Your task to perform on an android device: all mails in gmail Image 0: 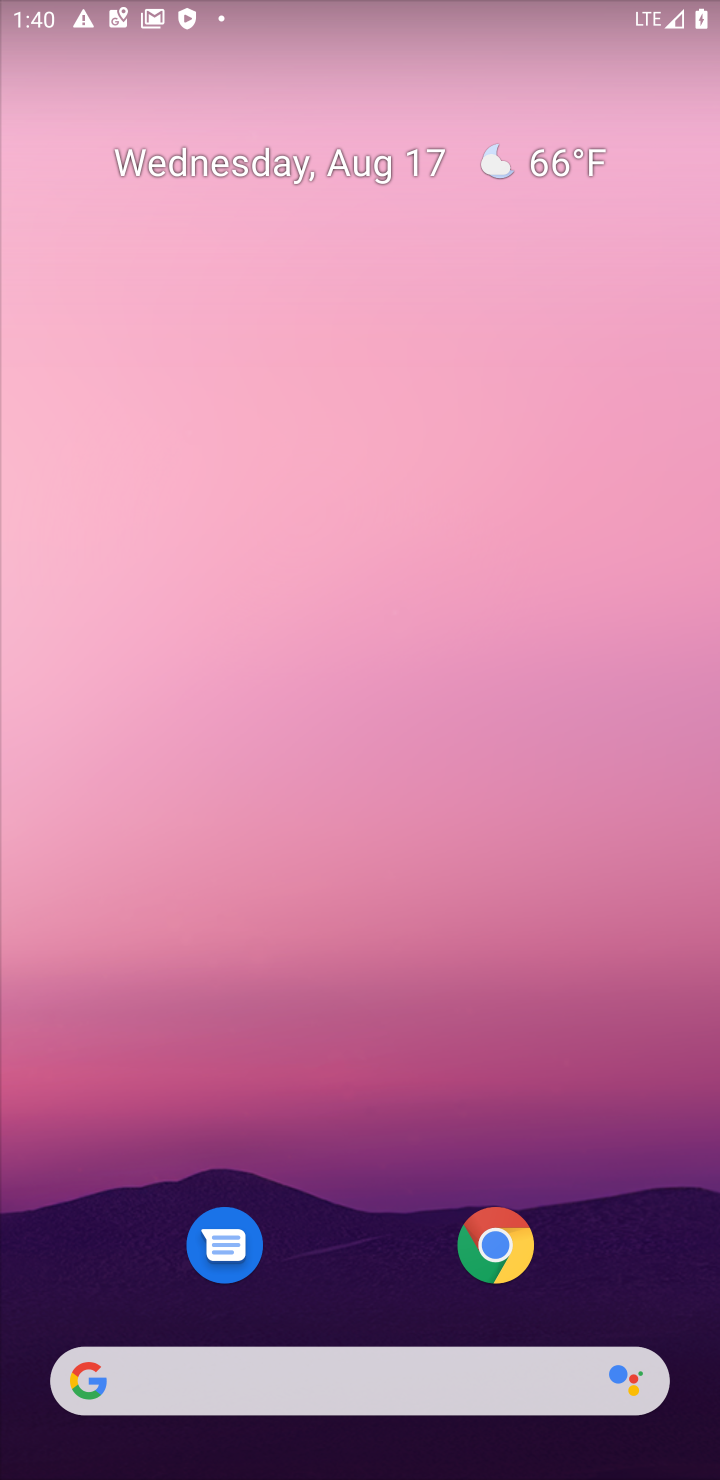
Step 0: drag from (383, 1313) to (433, 22)
Your task to perform on an android device: all mails in gmail Image 1: 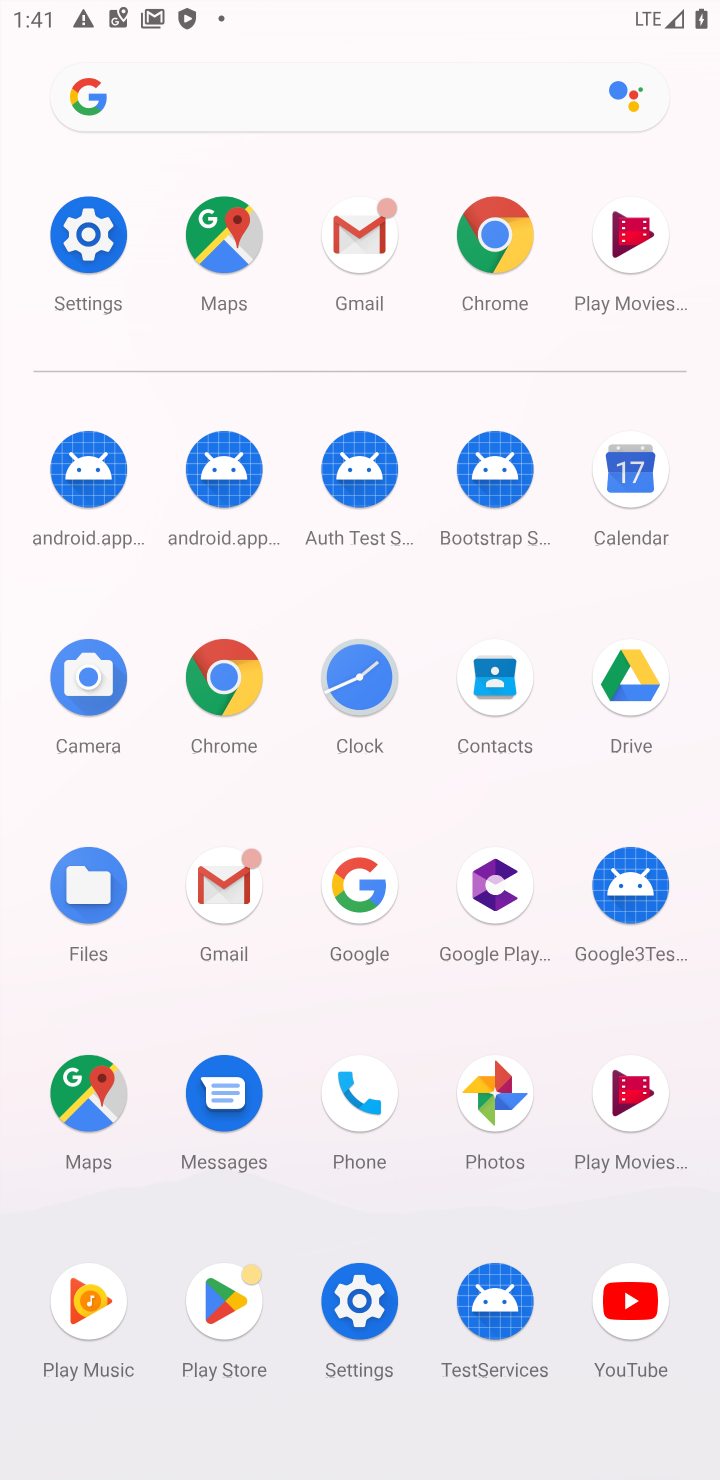
Step 1: click (227, 899)
Your task to perform on an android device: all mails in gmail Image 2: 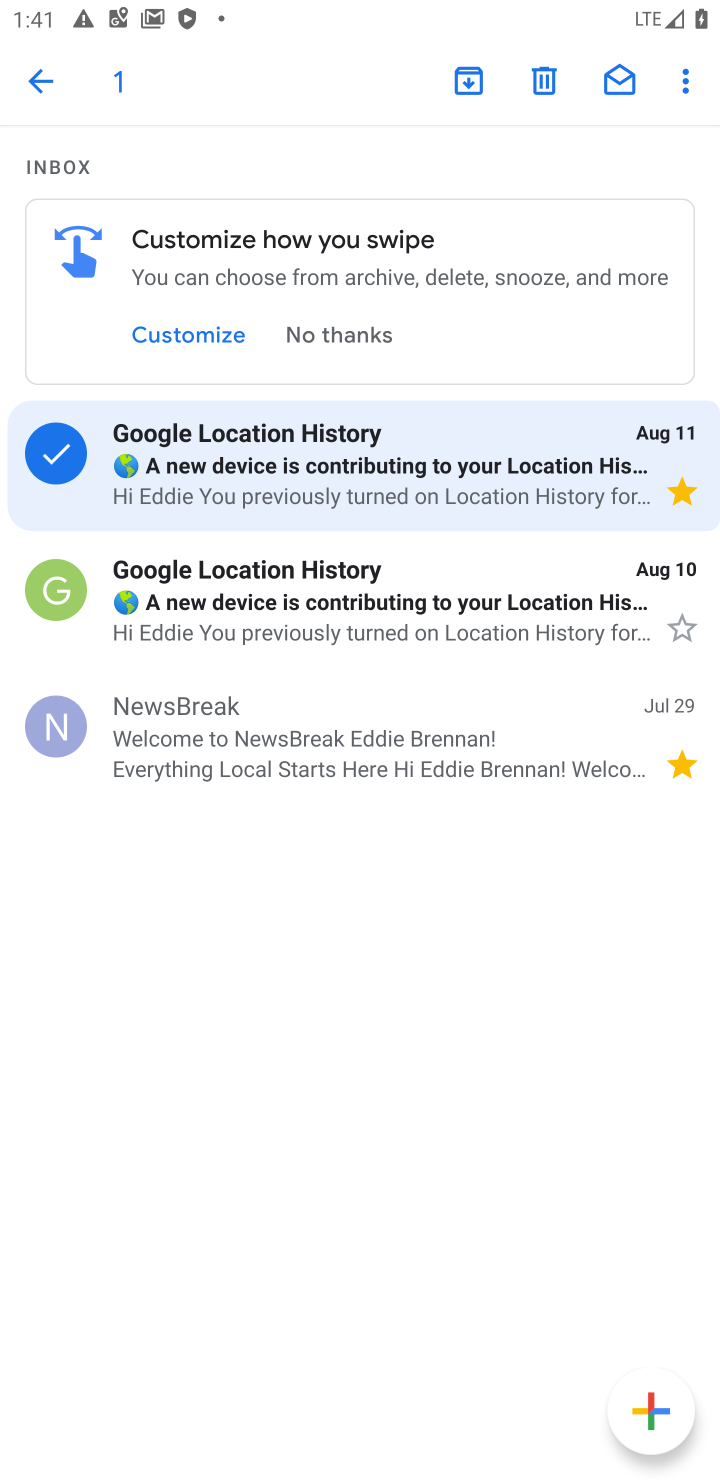
Step 2: click (41, 65)
Your task to perform on an android device: all mails in gmail Image 3: 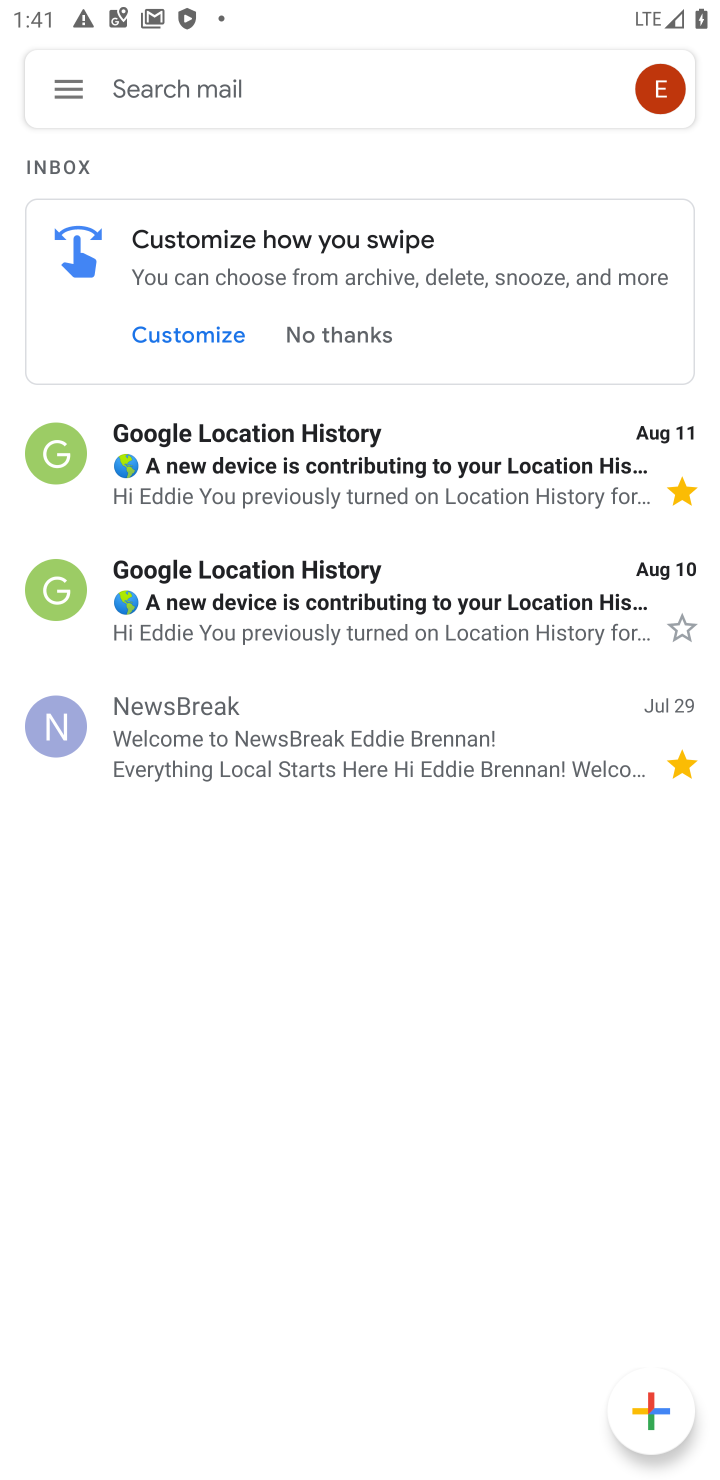
Step 3: click (59, 81)
Your task to perform on an android device: all mails in gmail Image 4: 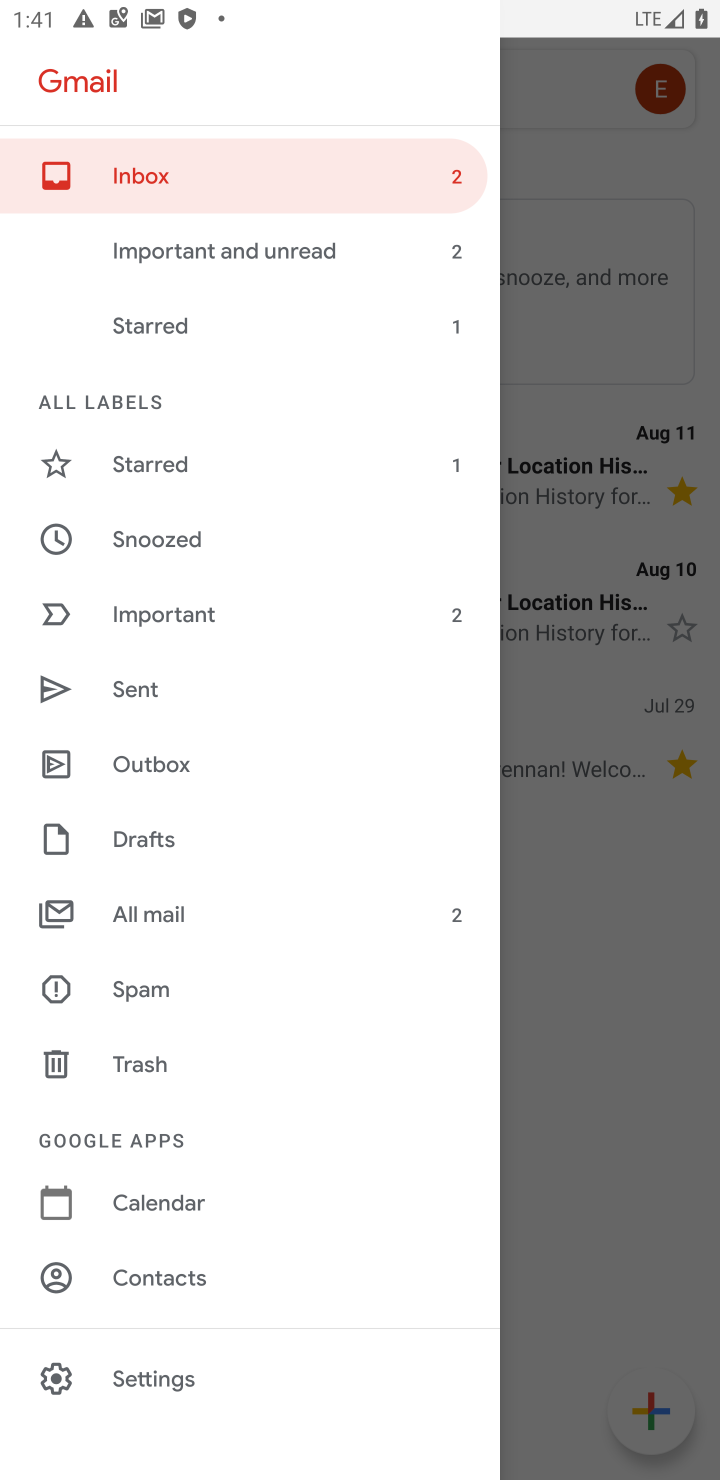
Step 4: click (146, 905)
Your task to perform on an android device: all mails in gmail Image 5: 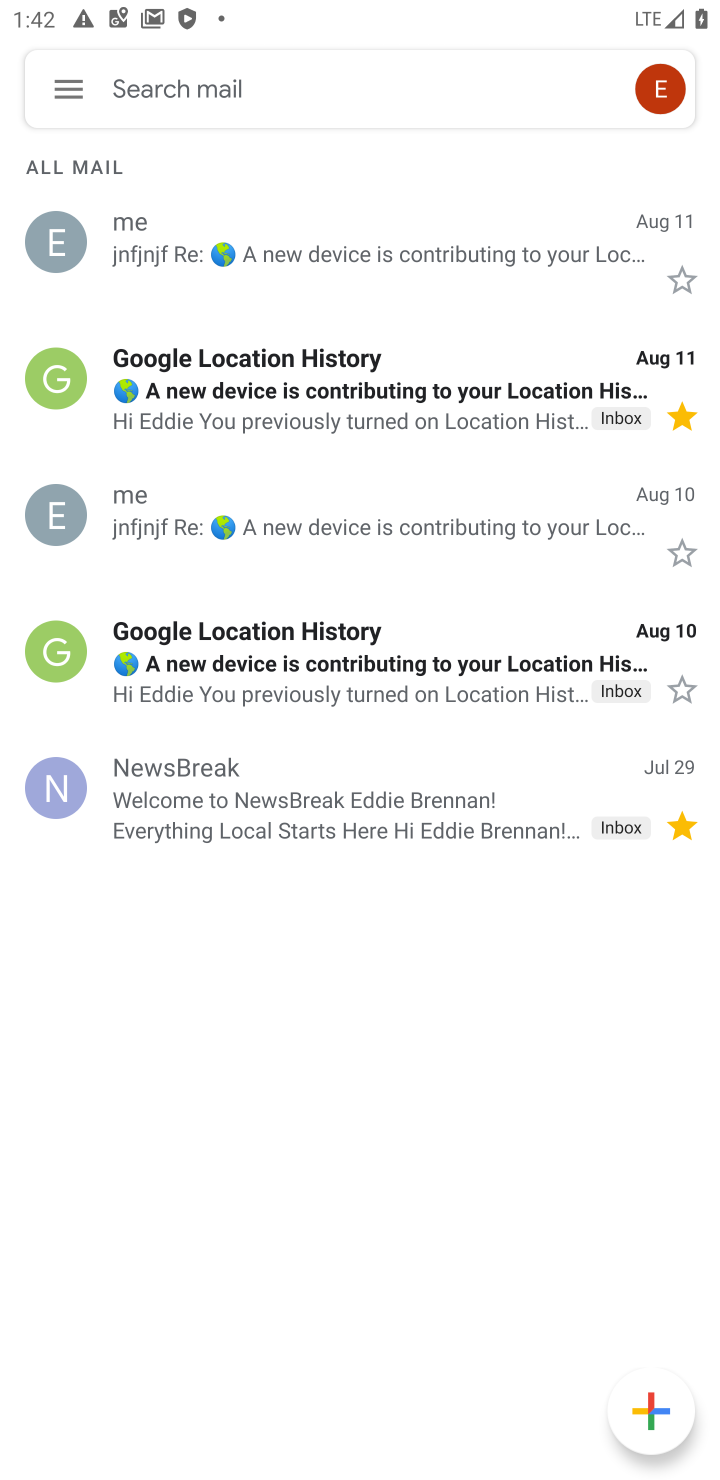
Step 5: task complete